Your task to perform on an android device: Is it going to rain tomorrow? Image 0: 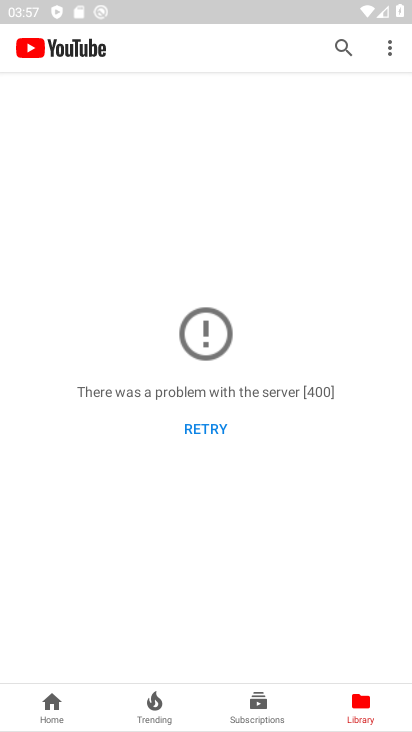
Step 0: press home button
Your task to perform on an android device: Is it going to rain tomorrow? Image 1: 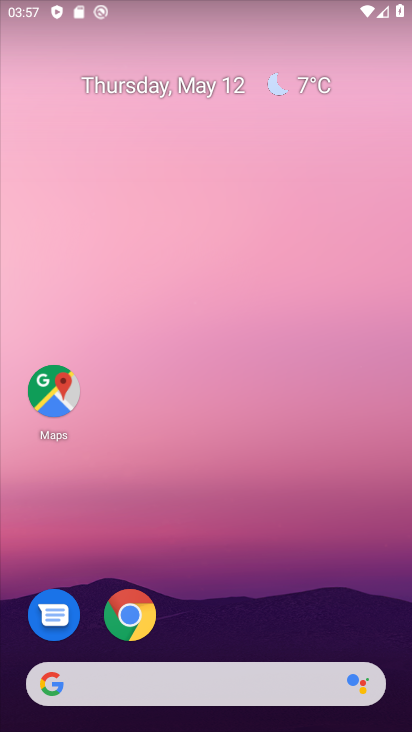
Step 1: click (313, 85)
Your task to perform on an android device: Is it going to rain tomorrow? Image 2: 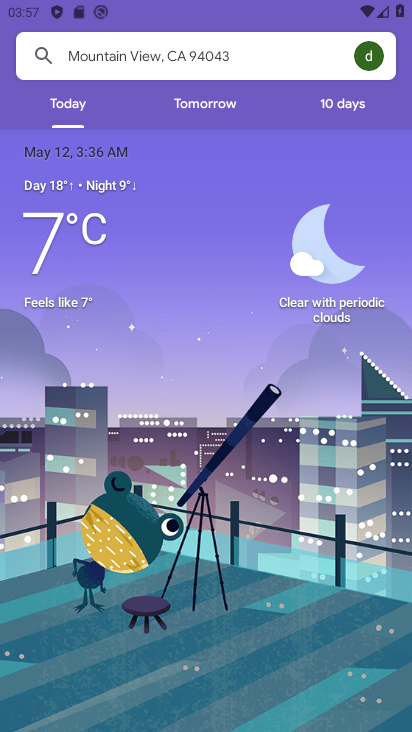
Step 2: click (181, 115)
Your task to perform on an android device: Is it going to rain tomorrow? Image 3: 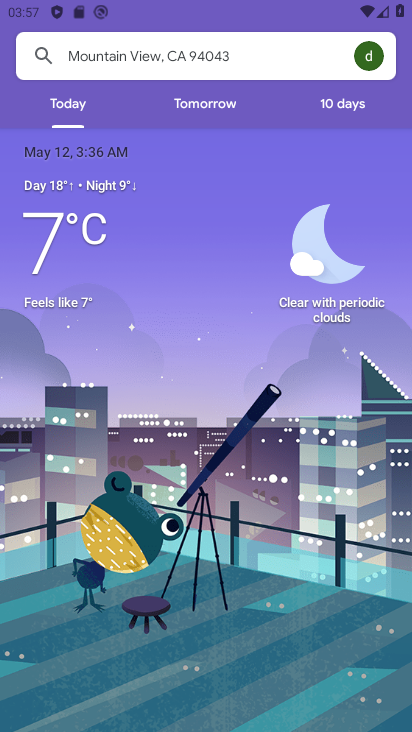
Step 3: click (200, 106)
Your task to perform on an android device: Is it going to rain tomorrow? Image 4: 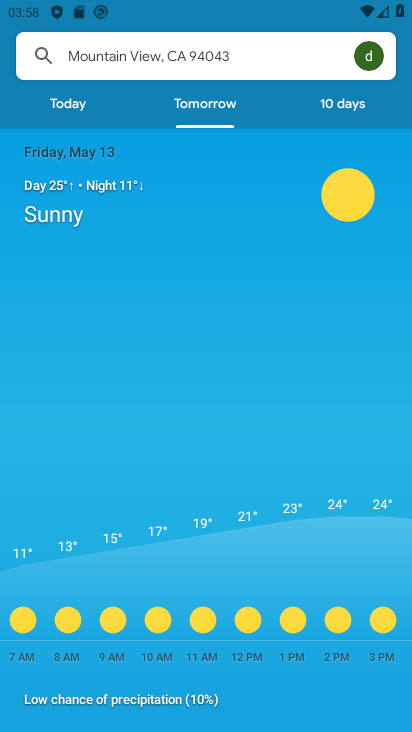
Step 4: task complete